Your task to perform on an android device: turn vacation reply on in the gmail app Image 0: 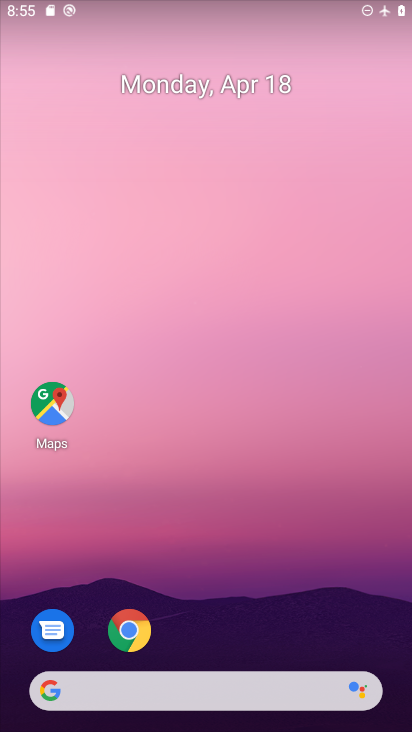
Step 0: drag from (229, 653) to (268, 170)
Your task to perform on an android device: turn vacation reply on in the gmail app Image 1: 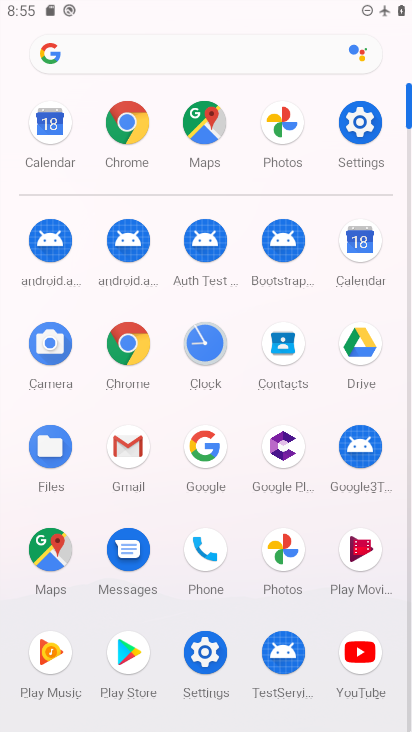
Step 1: click (133, 449)
Your task to perform on an android device: turn vacation reply on in the gmail app Image 2: 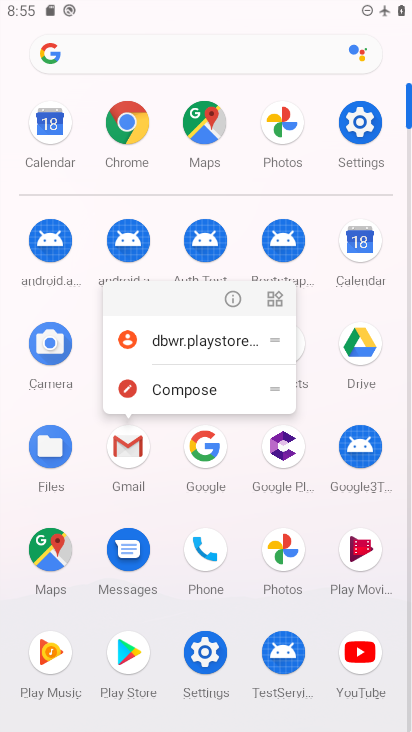
Step 2: click (136, 452)
Your task to perform on an android device: turn vacation reply on in the gmail app Image 3: 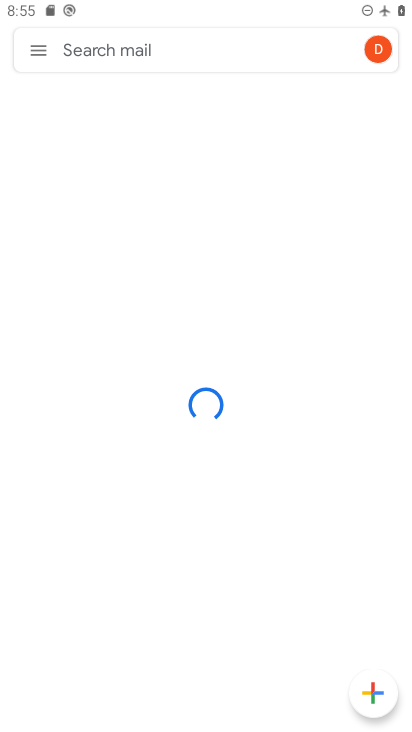
Step 3: click (35, 46)
Your task to perform on an android device: turn vacation reply on in the gmail app Image 4: 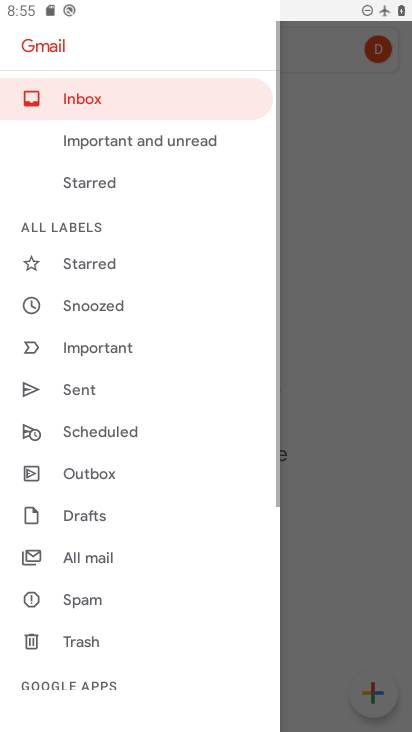
Step 4: click (86, 217)
Your task to perform on an android device: turn vacation reply on in the gmail app Image 5: 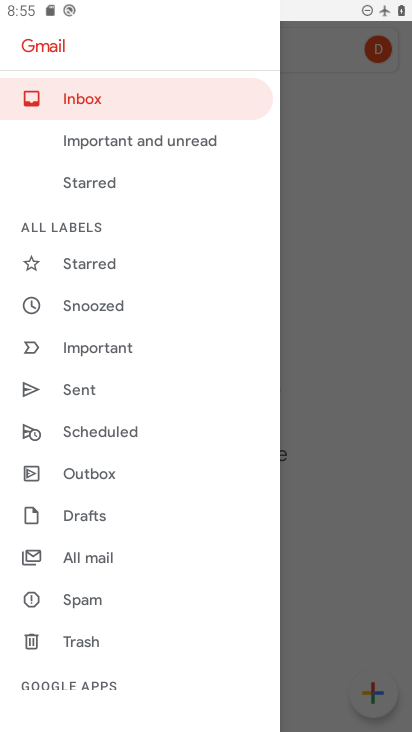
Step 5: drag from (105, 599) to (130, 339)
Your task to perform on an android device: turn vacation reply on in the gmail app Image 6: 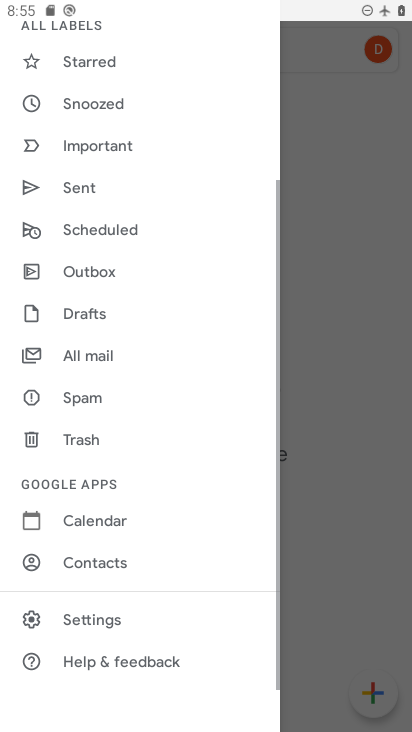
Step 6: click (91, 615)
Your task to perform on an android device: turn vacation reply on in the gmail app Image 7: 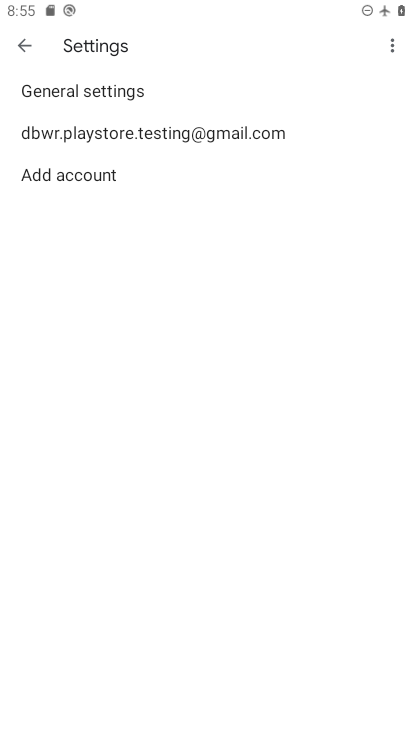
Step 7: click (101, 133)
Your task to perform on an android device: turn vacation reply on in the gmail app Image 8: 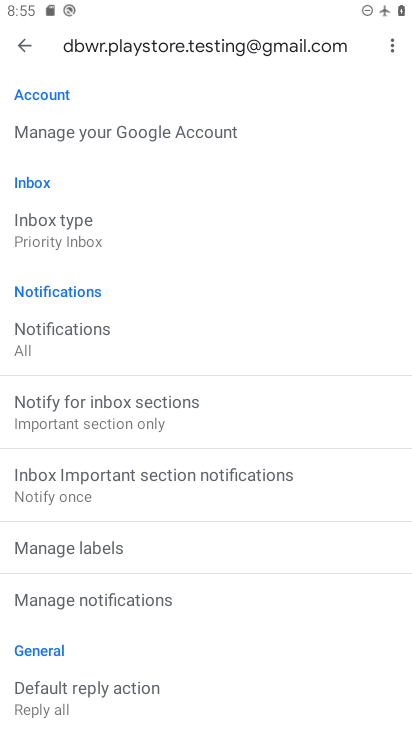
Step 8: drag from (117, 598) to (235, 32)
Your task to perform on an android device: turn vacation reply on in the gmail app Image 9: 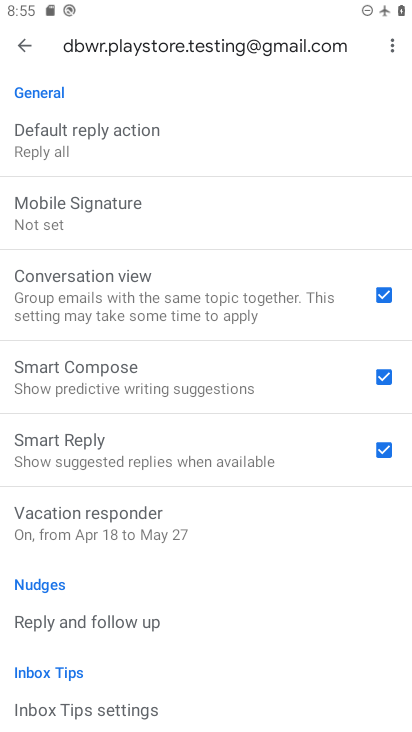
Step 9: click (90, 510)
Your task to perform on an android device: turn vacation reply on in the gmail app Image 10: 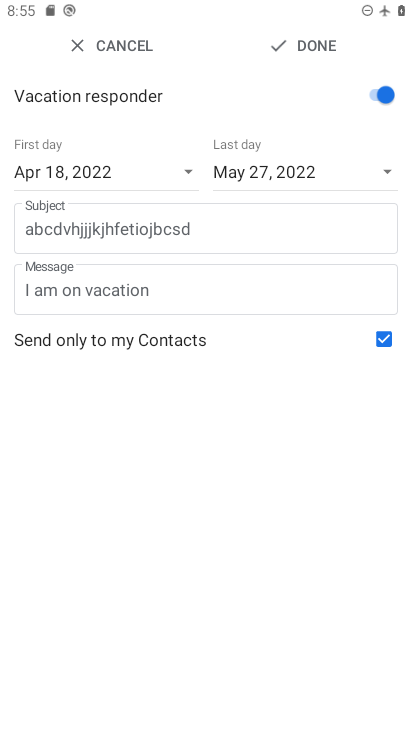
Step 10: task complete